Your task to perform on an android device: Do I have any events tomorrow? Image 0: 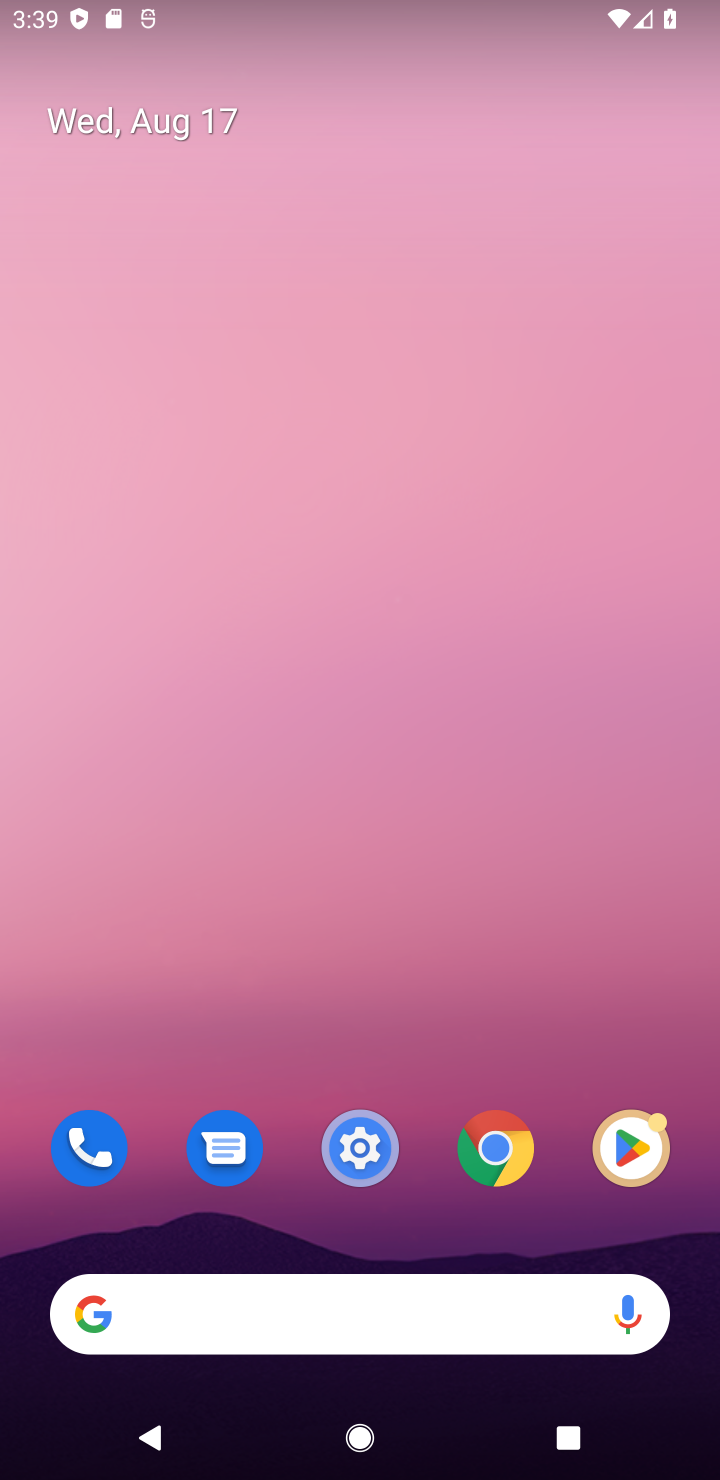
Step 0: drag from (566, 1054) to (441, 221)
Your task to perform on an android device: Do I have any events tomorrow? Image 1: 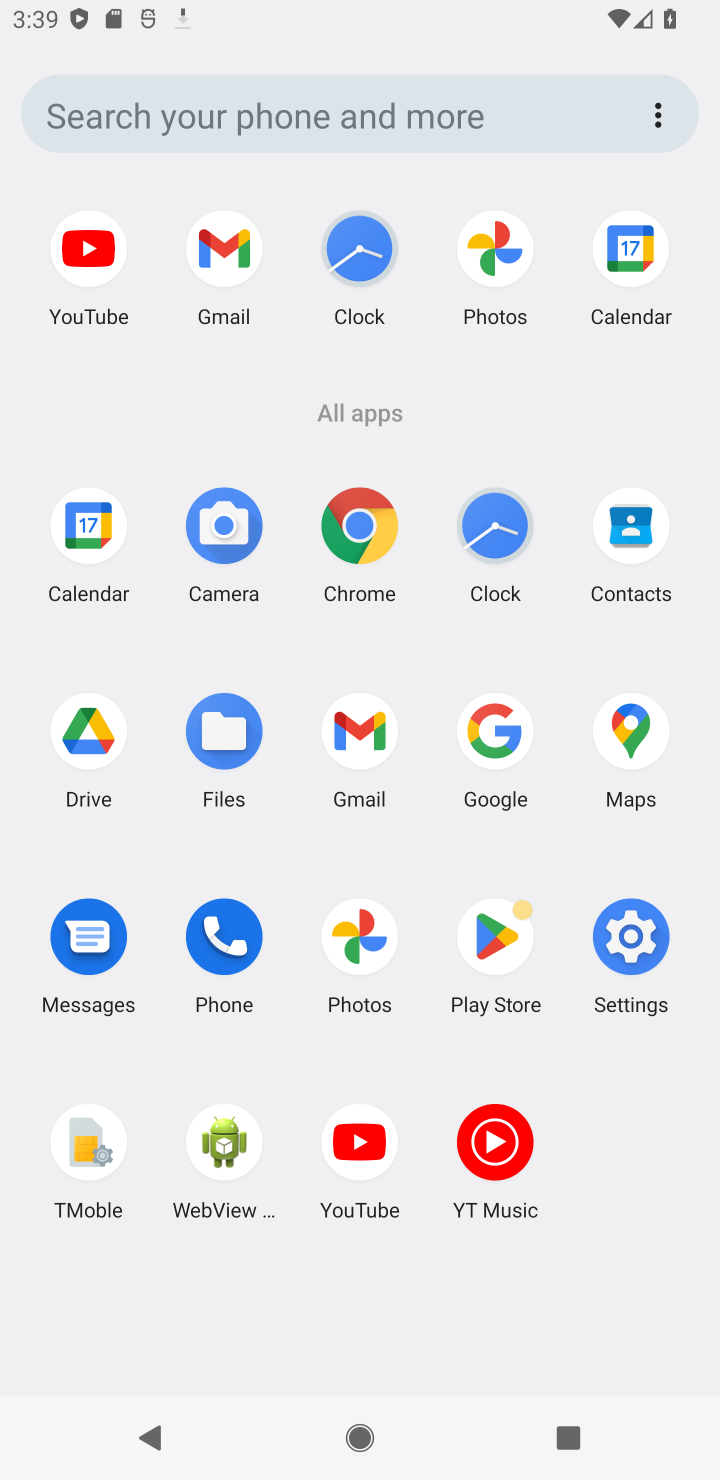
Step 1: click (93, 526)
Your task to perform on an android device: Do I have any events tomorrow? Image 2: 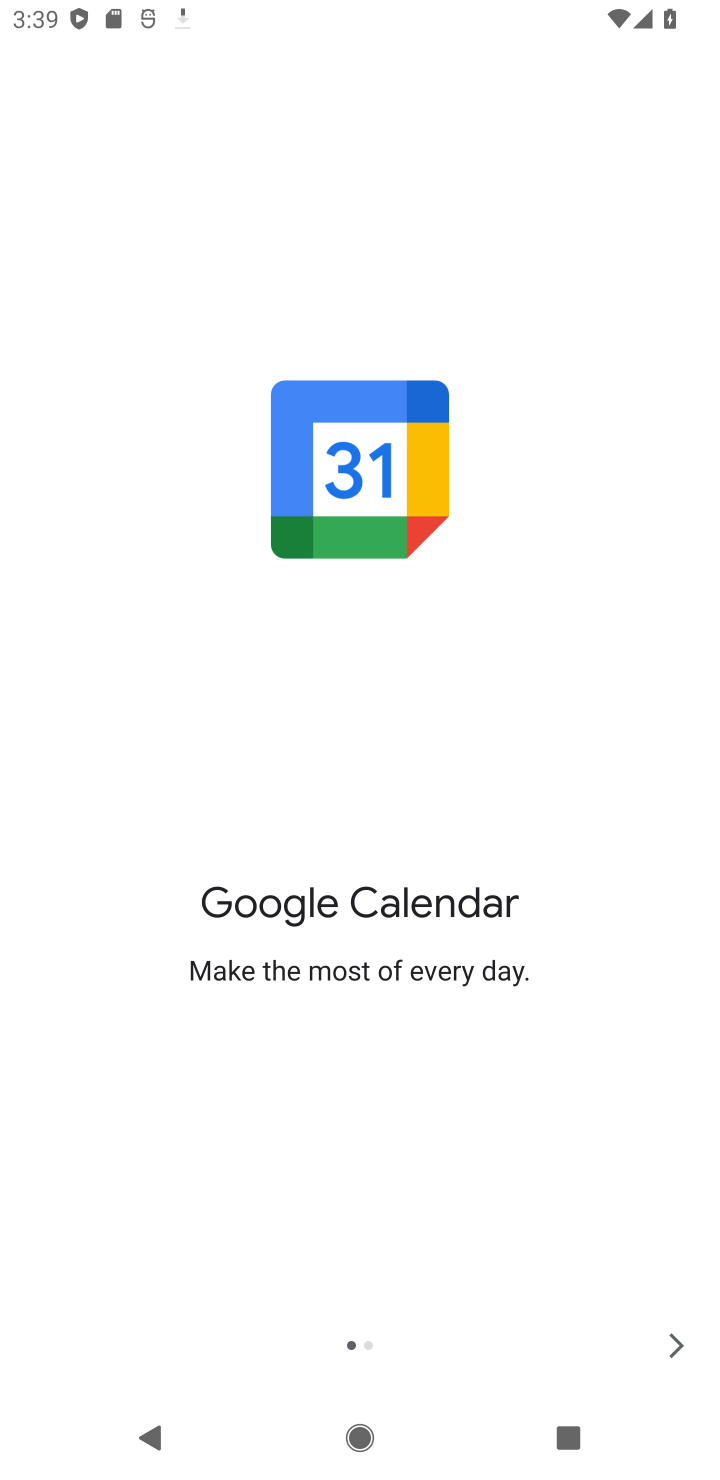
Step 2: click (664, 1350)
Your task to perform on an android device: Do I have any events tomorrow? Image 3: 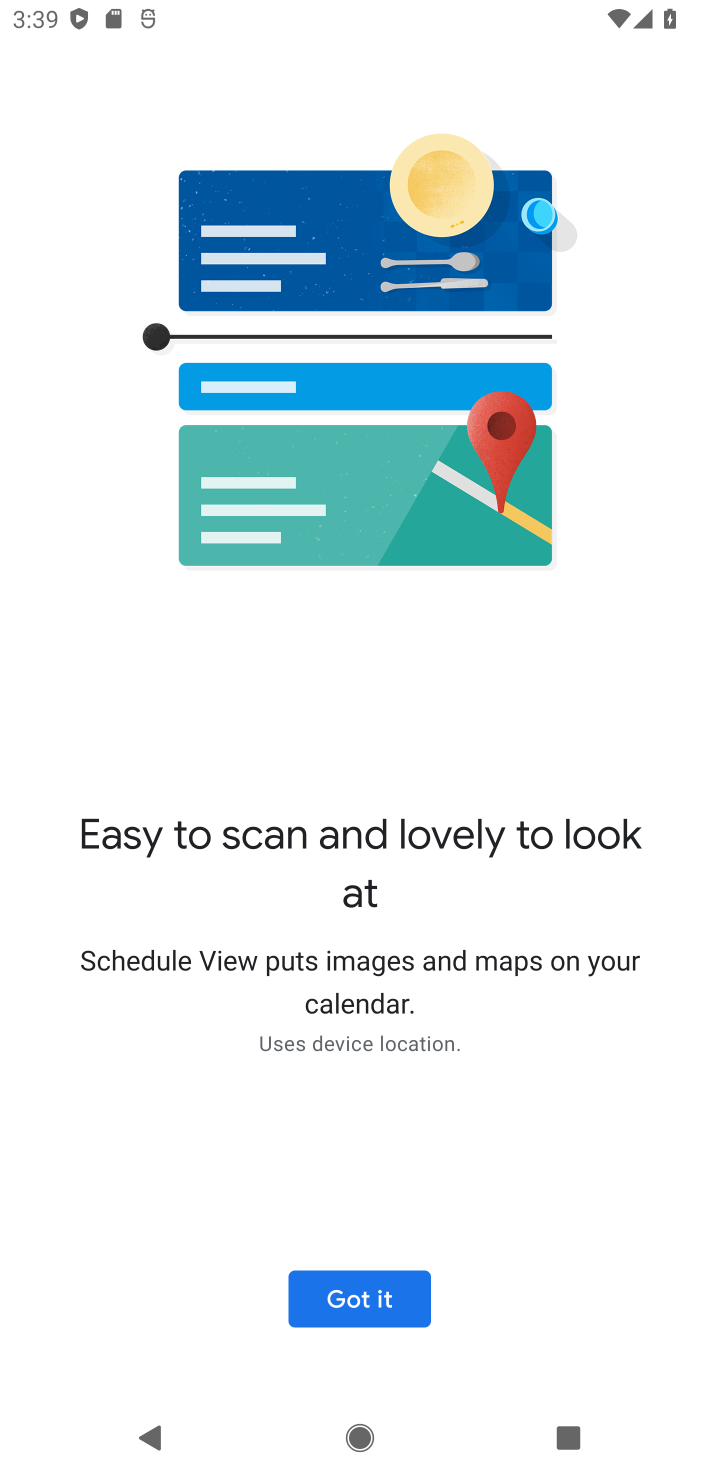
Step 3: click (408, 1301)
Your task to perform on an android device: Do I have any events tomorrow? Image 4: 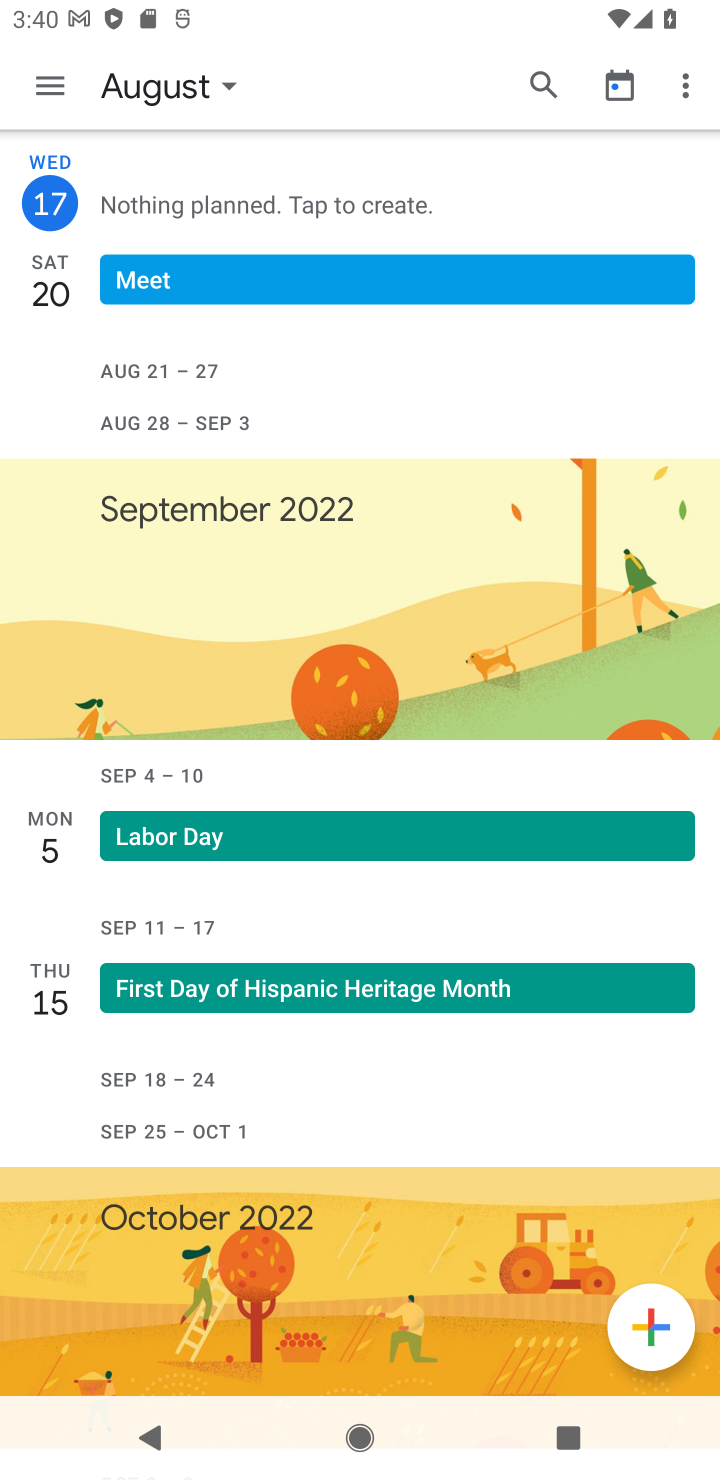
Step 4: click (55, 85)
Your task to perform on an android device: Do I have any events tomorrow? Image 5: 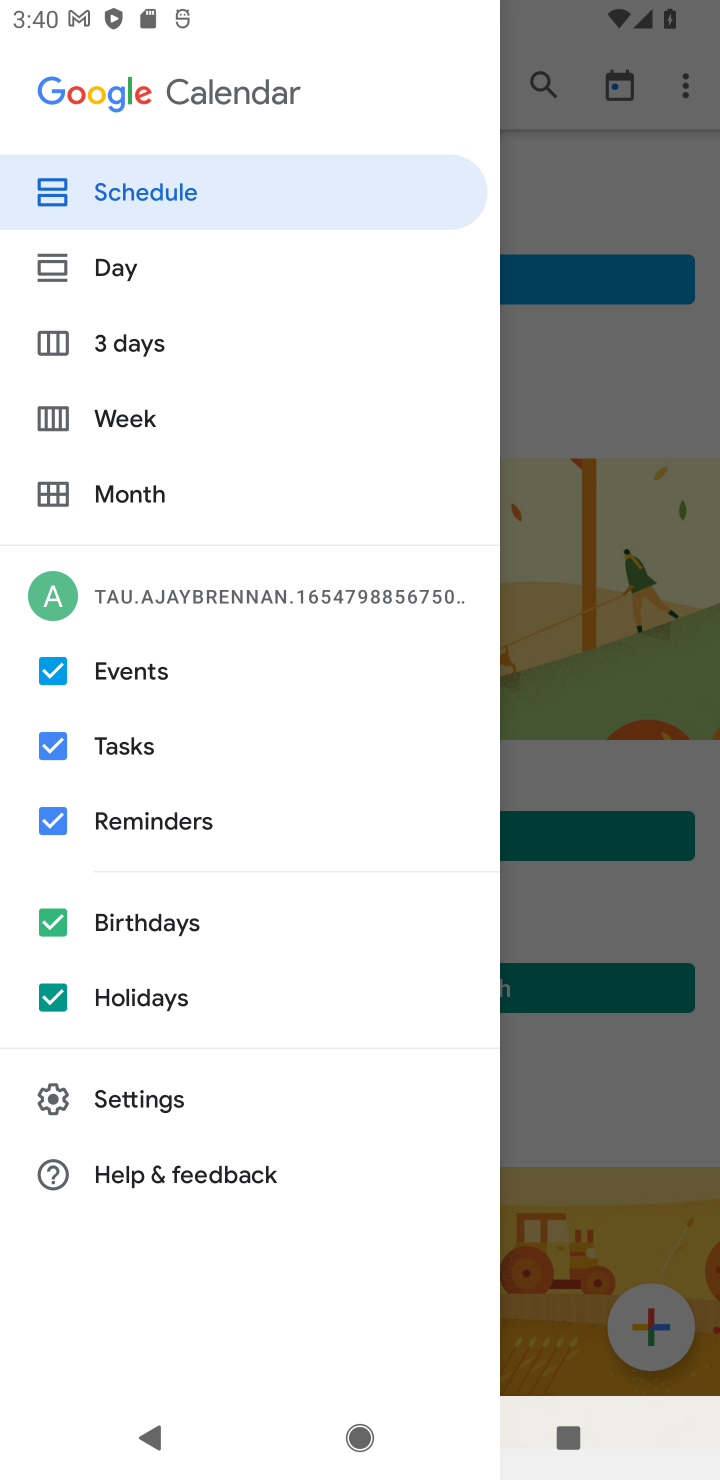
Step 5: click (128, 267)
Your task to perform on an android device: Do I have any events tomorrow? Image 6: 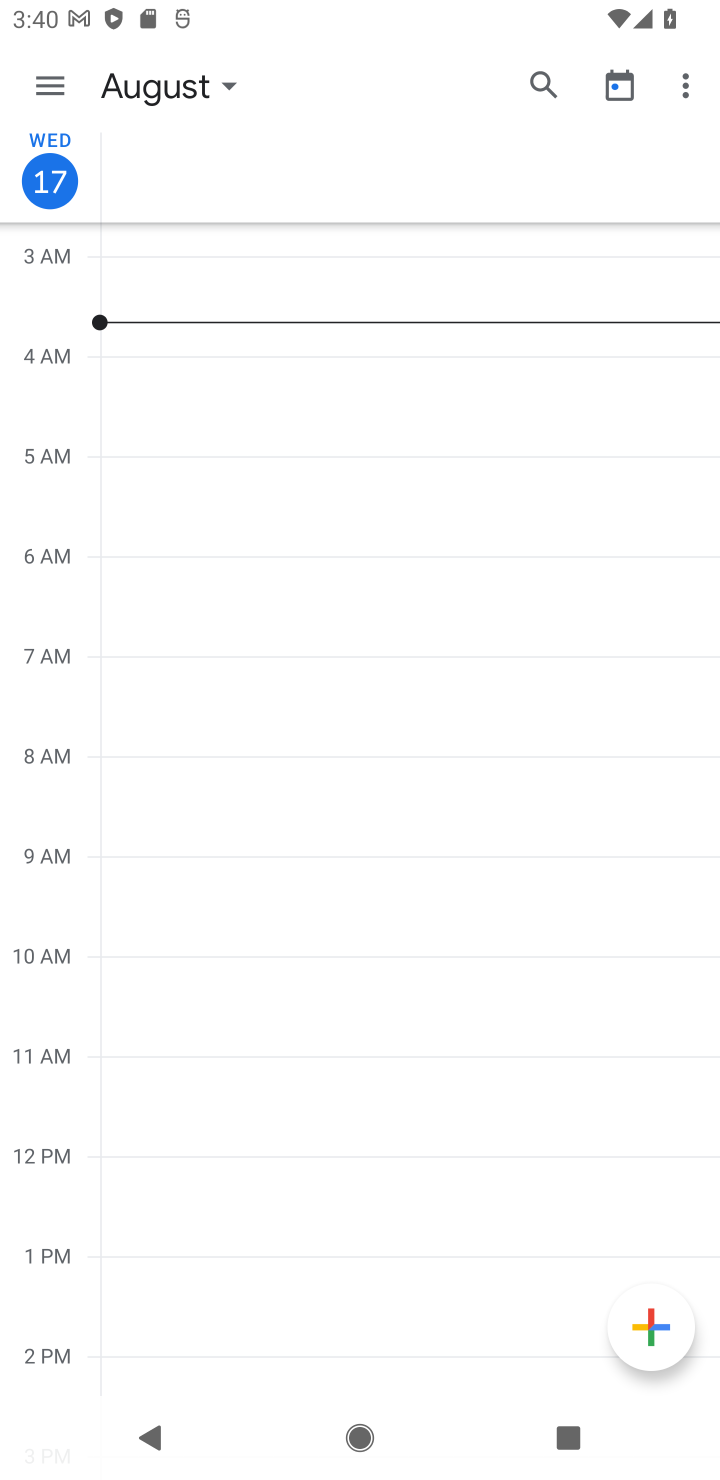
Step 6: click (168, 93)
Your task to perform on an android device: Do I have any events tomorrow? Image 7: 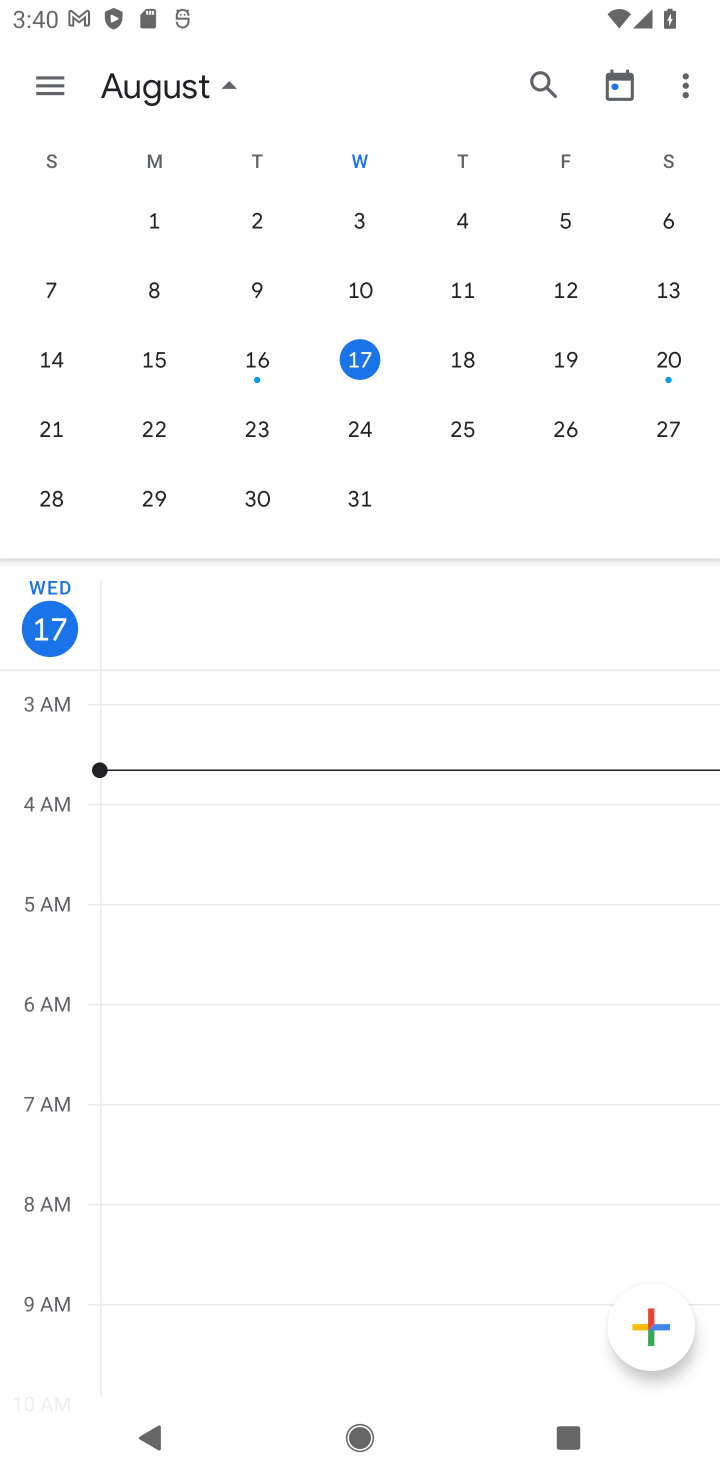
Step 7: click (464, 360)
Your task to perform on an android device: Do I have any events tomorrow? Image 8: 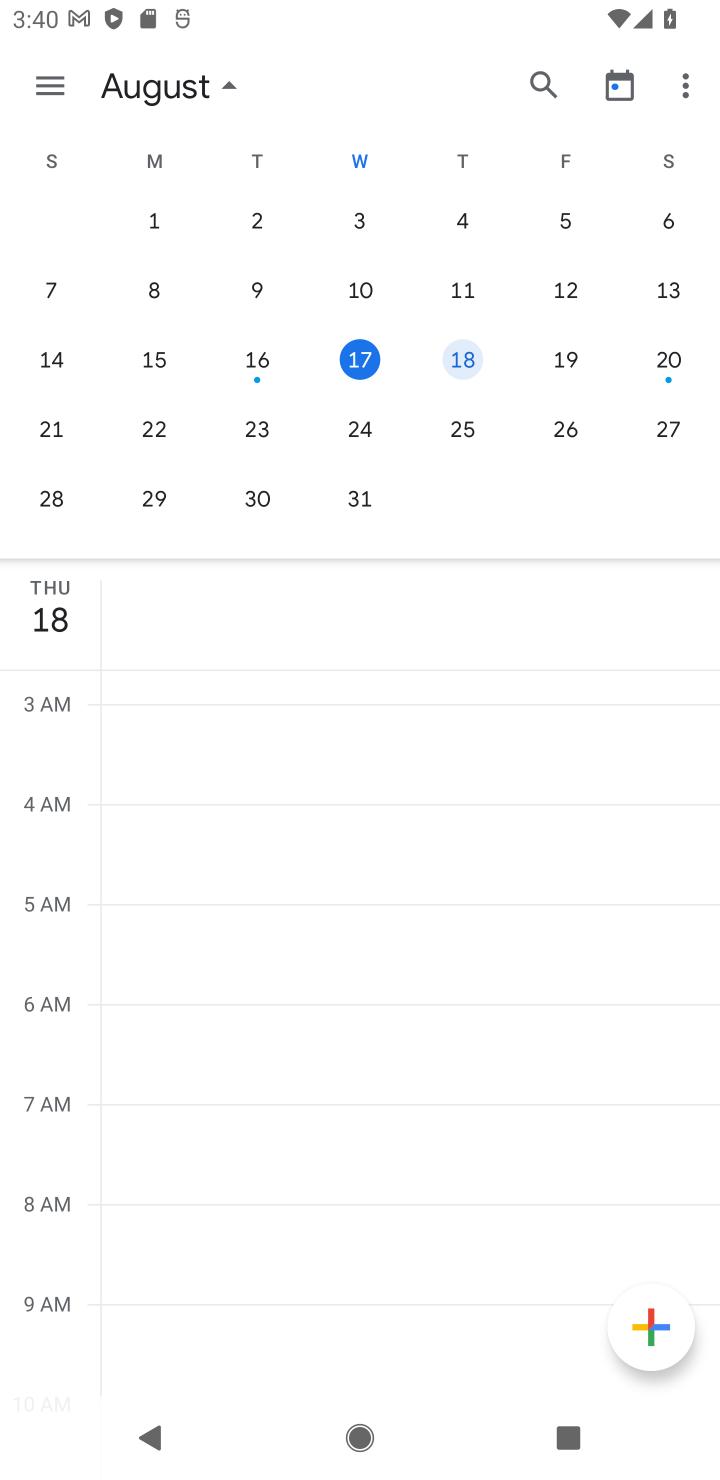
Step 8: task complete